Your task to perform on an android device: show emergency info Image 0: 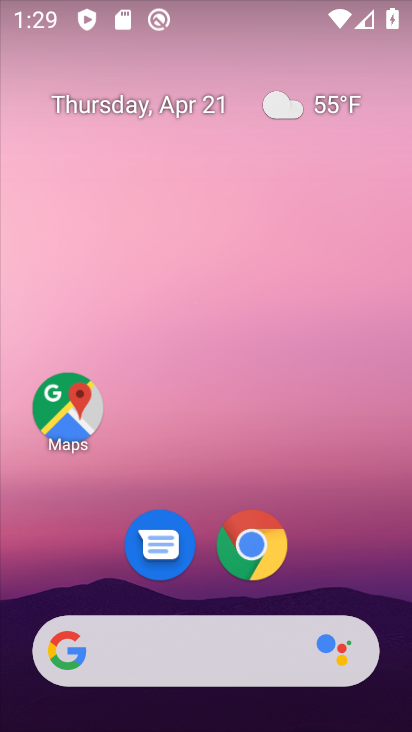
Step 0: drag from (365, 582) to (375, 18)
Your task to perform on an android device: show emergency info Image 1: 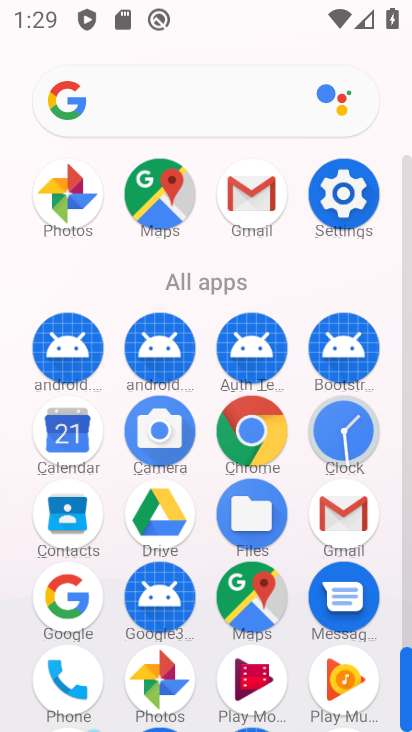
Step 1: click (341, 203)
Your task to perform on an android device: show emergency info Image 2: 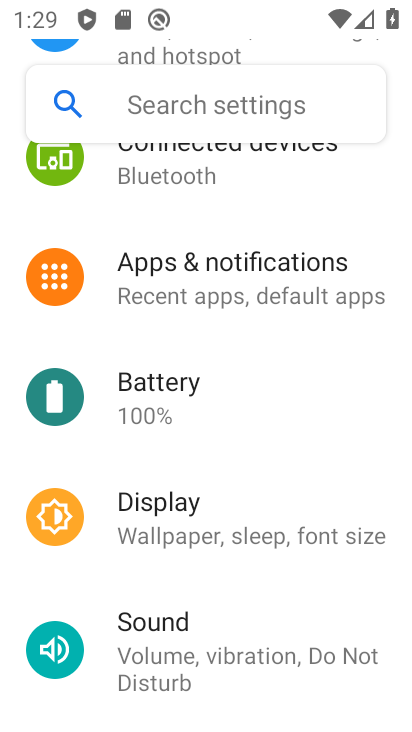
Step 2: drag from (364, 576) to (344, 167)
Your task to perform on an android device: show emergency info Image 3: 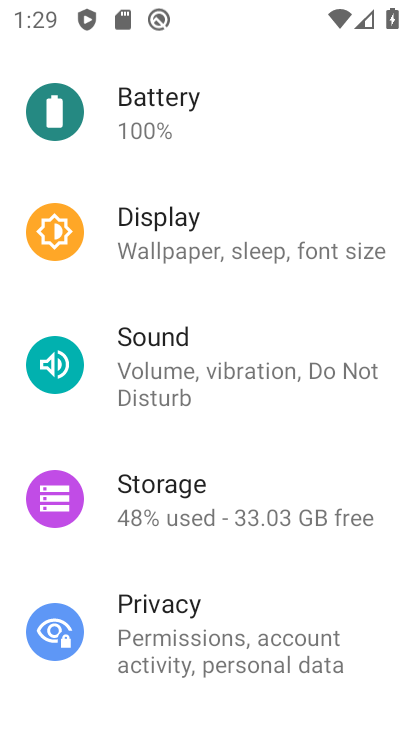
Step 3: drag from (305, 517) to (299, 163)
Your task to perform on an android device: show emergency info Image 4: 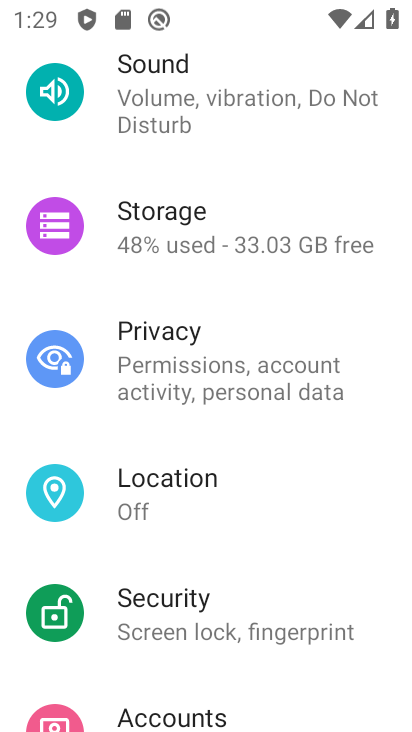
Step 4: drag from (268, 568) to (261, 215)
Your task to perform on an android device: show emergency info Image 5: 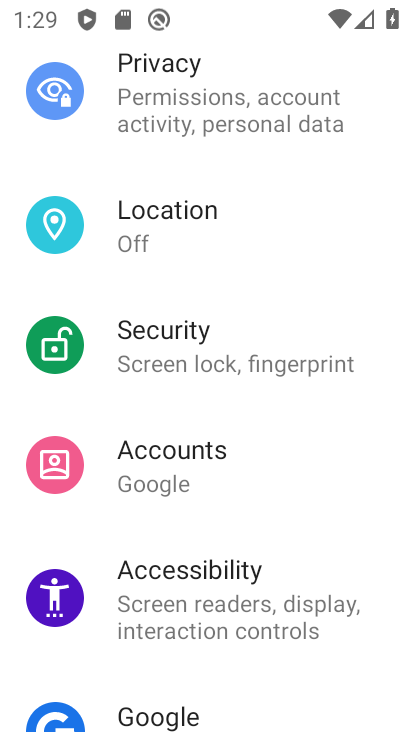
Step 5: drag from (259, 524) to (254, 144)
Your task to perform on an android device: show emergency info Image 6: 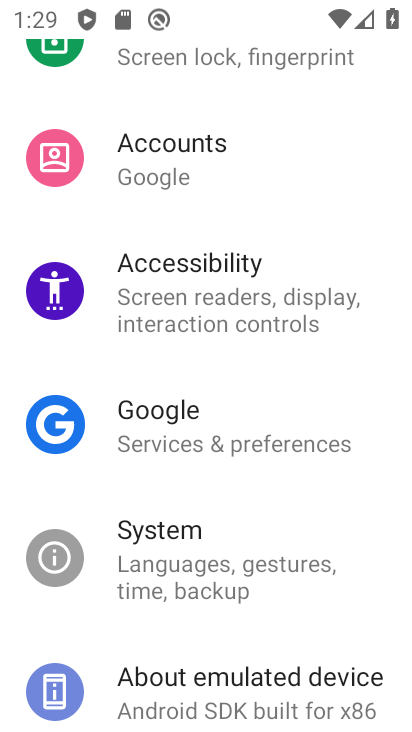
Step 6: drag from (315, 546) to (297, 169)
Your task to perform on an android device: show emergency info Image 7: 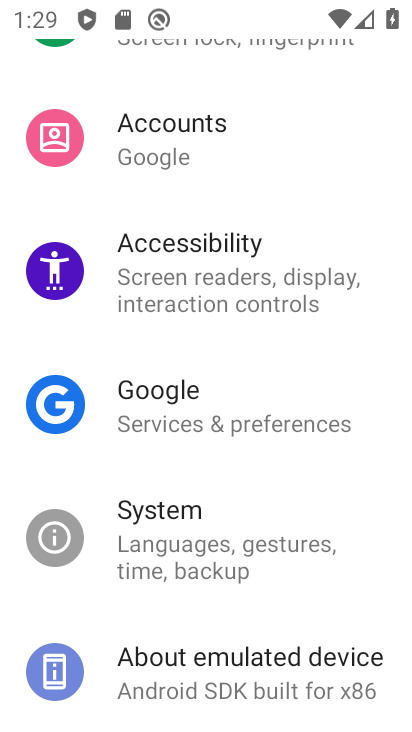
Step 7: click (230, 685)
Your task to perform on an android device: show emergency info Image 8: 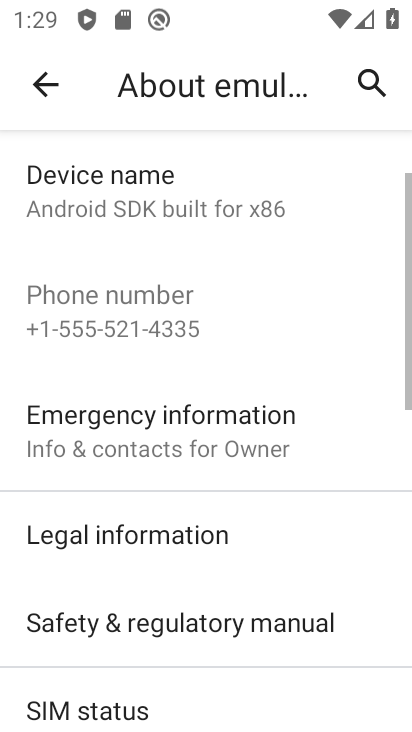
Step 8: click (160, 440)
Your task to perform on an android device: show emergency info Image 9: 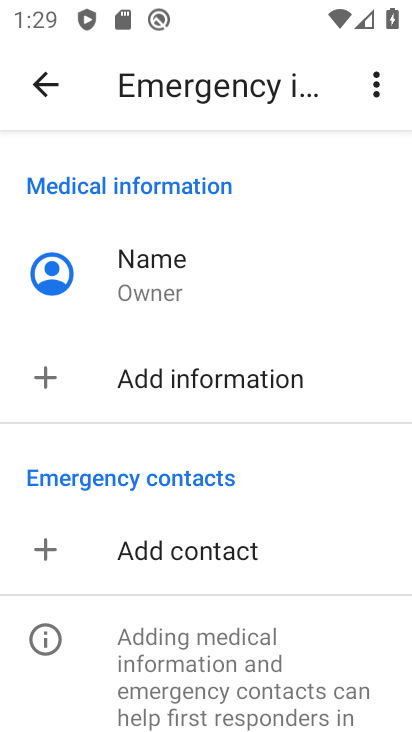
Step 9: task complete